Your task to perform on an android device: turn on notifications settings in the gmail app Image 0: 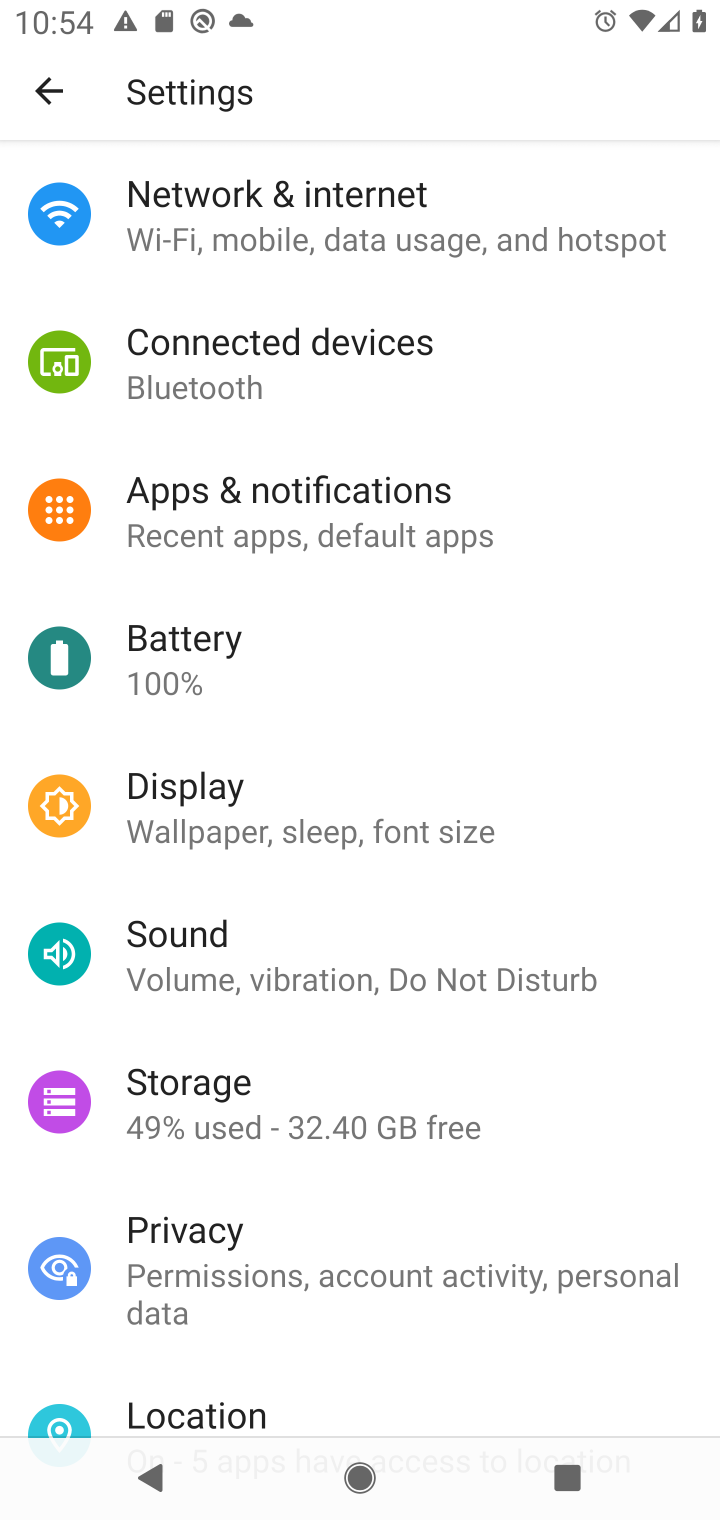
Step 0: press home button
Your task to perform on an android device: turn on notifications settings in the gmail app Image 1: 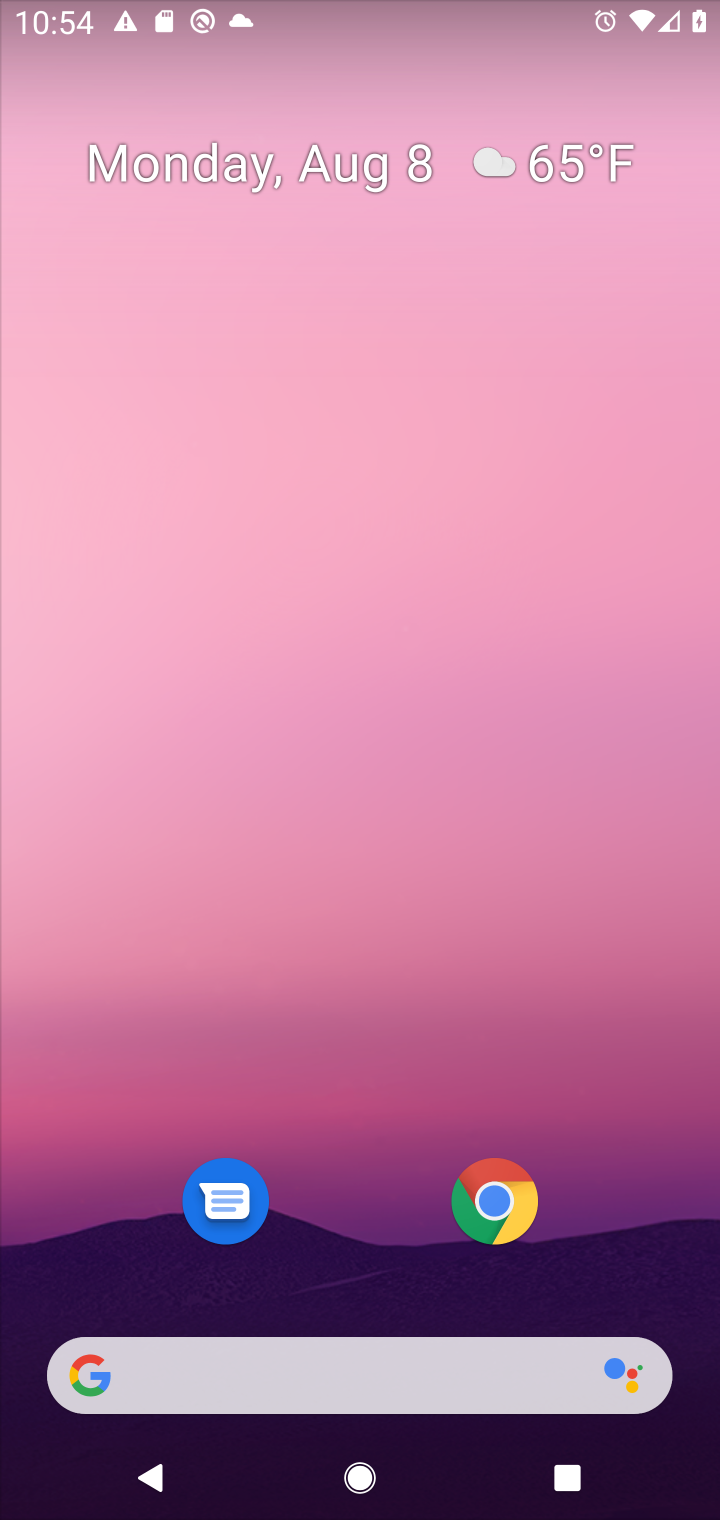
Step 1: press home button
Your task to perform on an android device: turn on notifications settings in the gmail app Image 2: 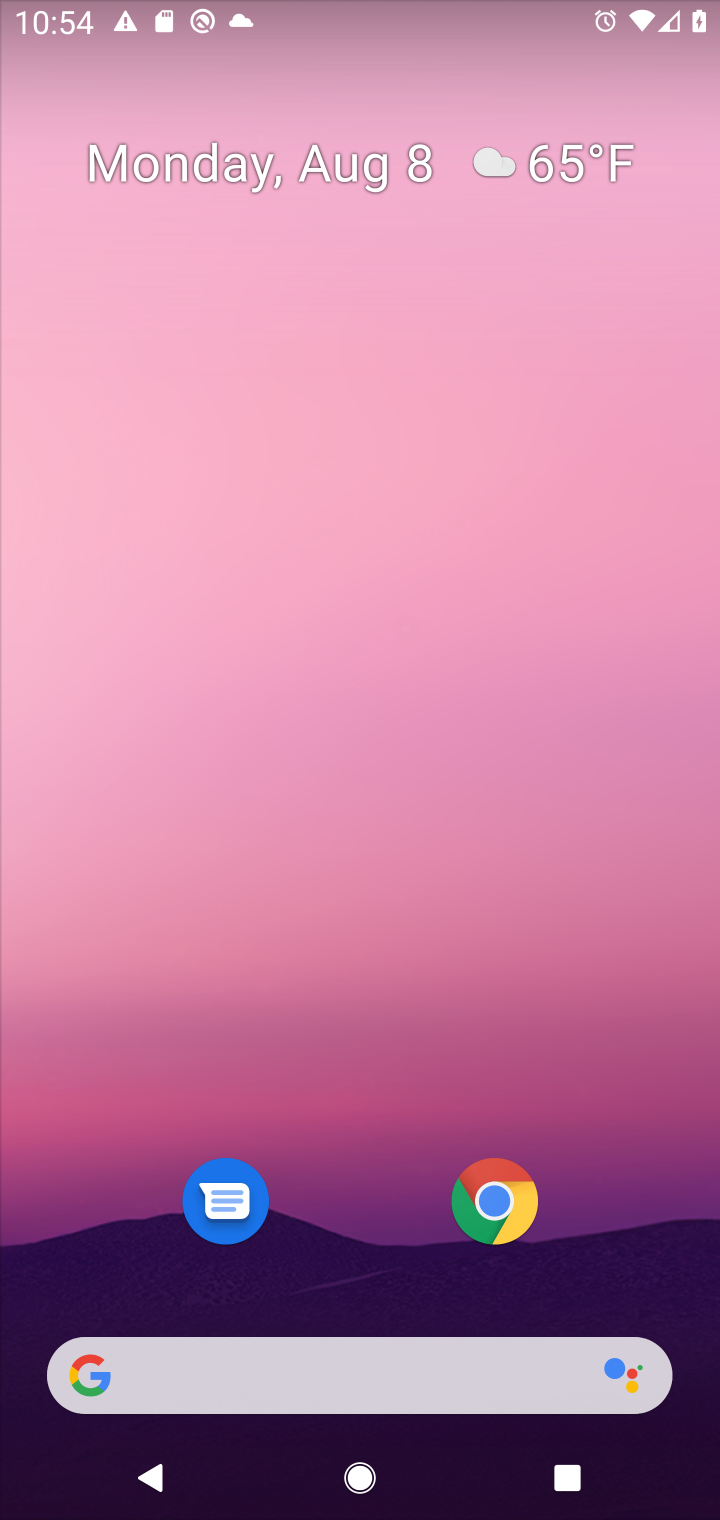
Step 2: drag from (392, 1137) to (390, 347)
Your task to perform on an android device: turn on notifications settings in the gmail app Image 3: 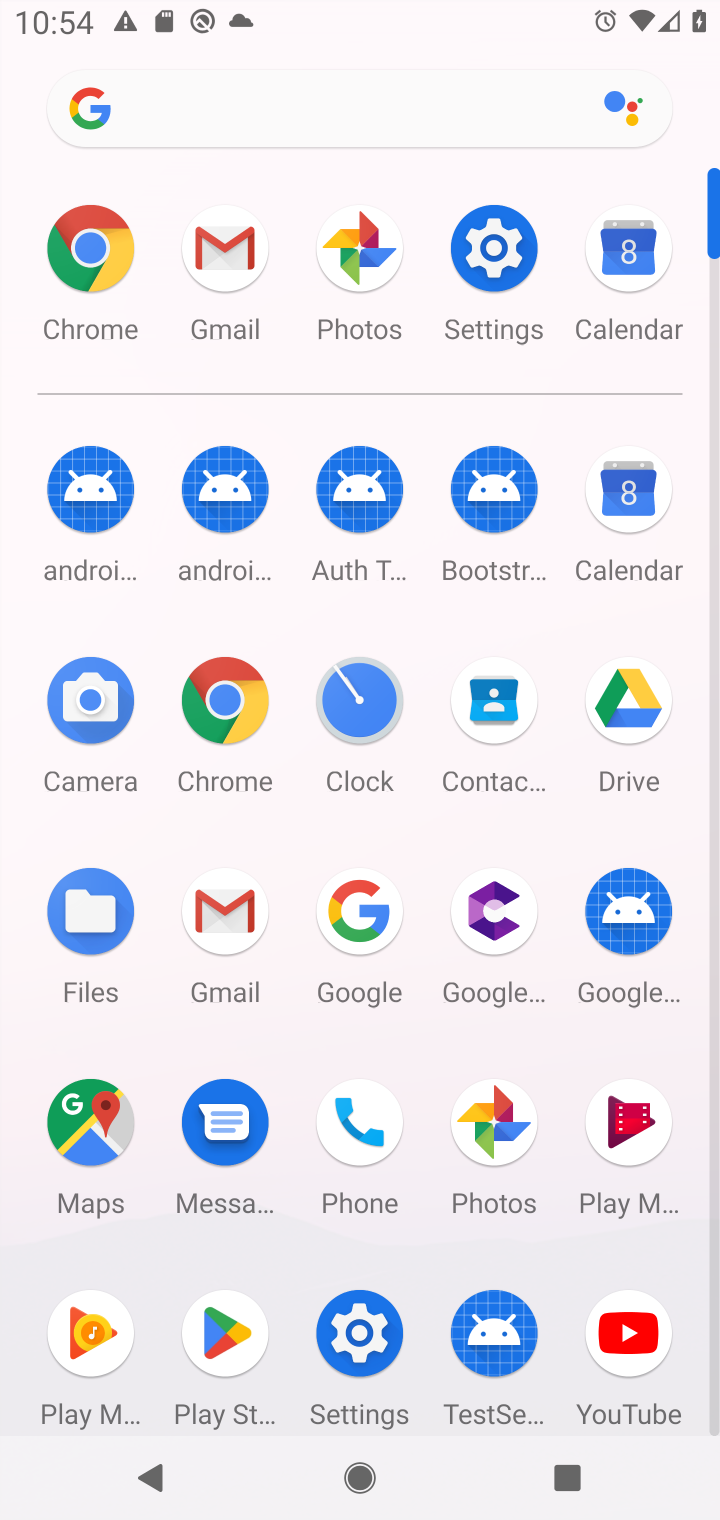
Step 3: click (228, 917)
Your task to perform on an android device: turn on notifications settings in the gmail app Image 4: 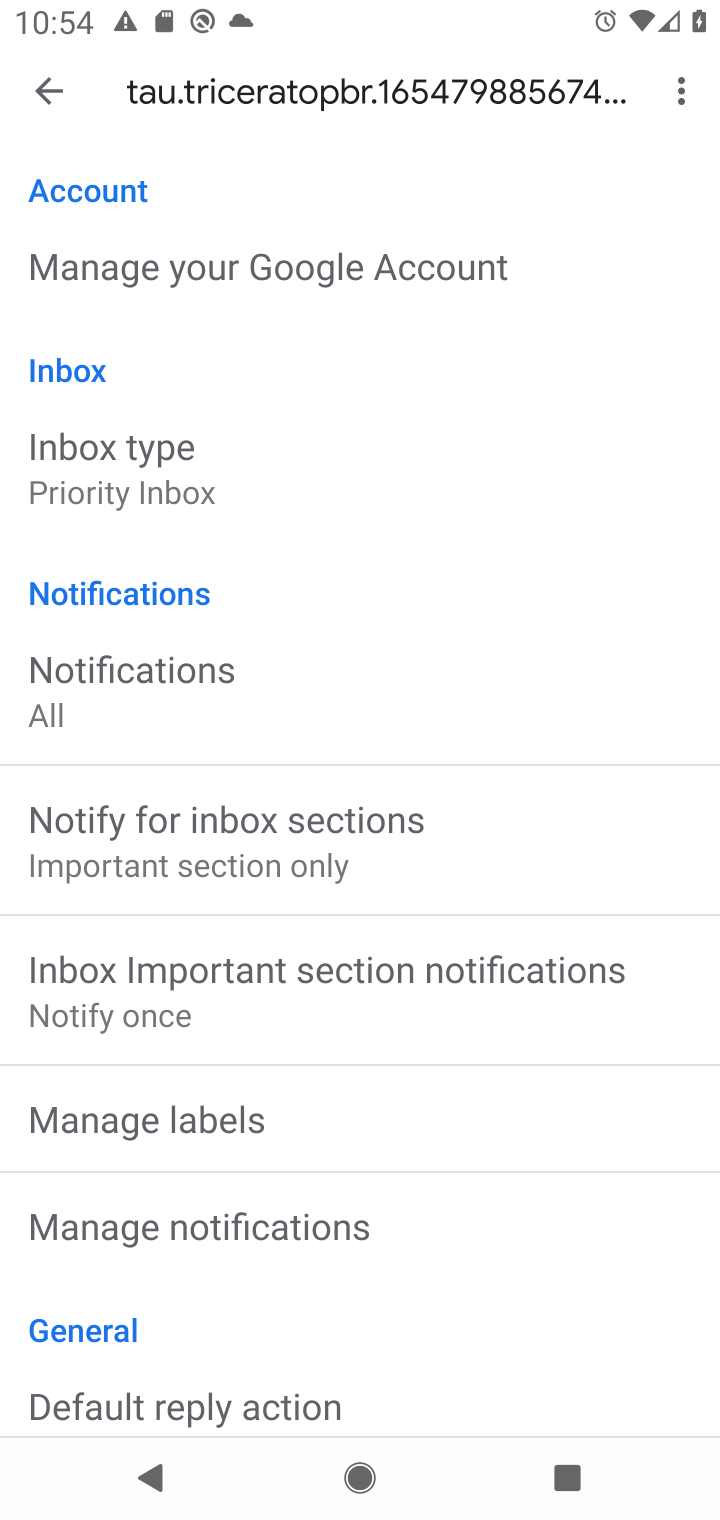
Step 4: drag from (571, 1042) to (602, 773)
Your task to perform on an android device: turn on notifications settings in the gmail app Image 5: 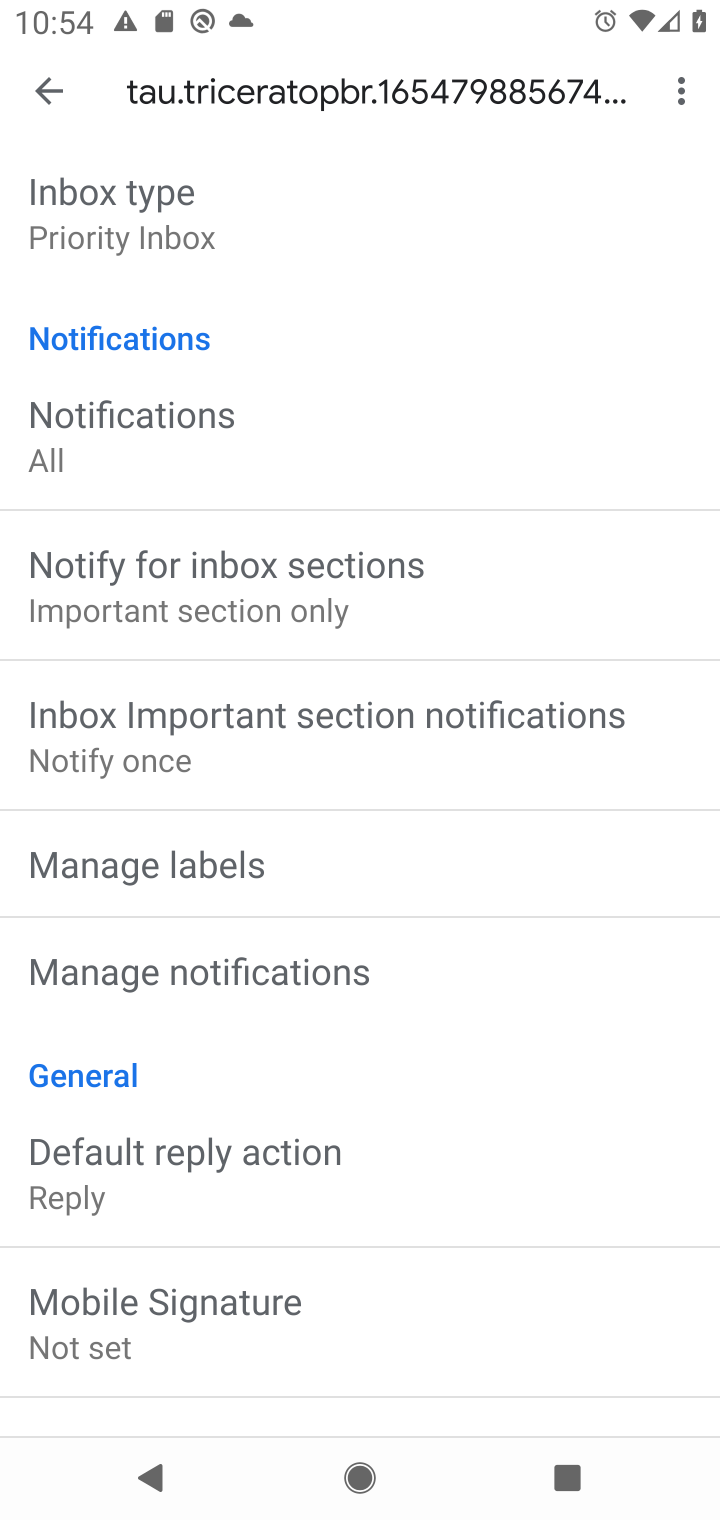
Step 5: drag from (560, 1043) to (572, 730)
Your task to perform on an android device: turn on notifications settings in the gmail app Image 6: 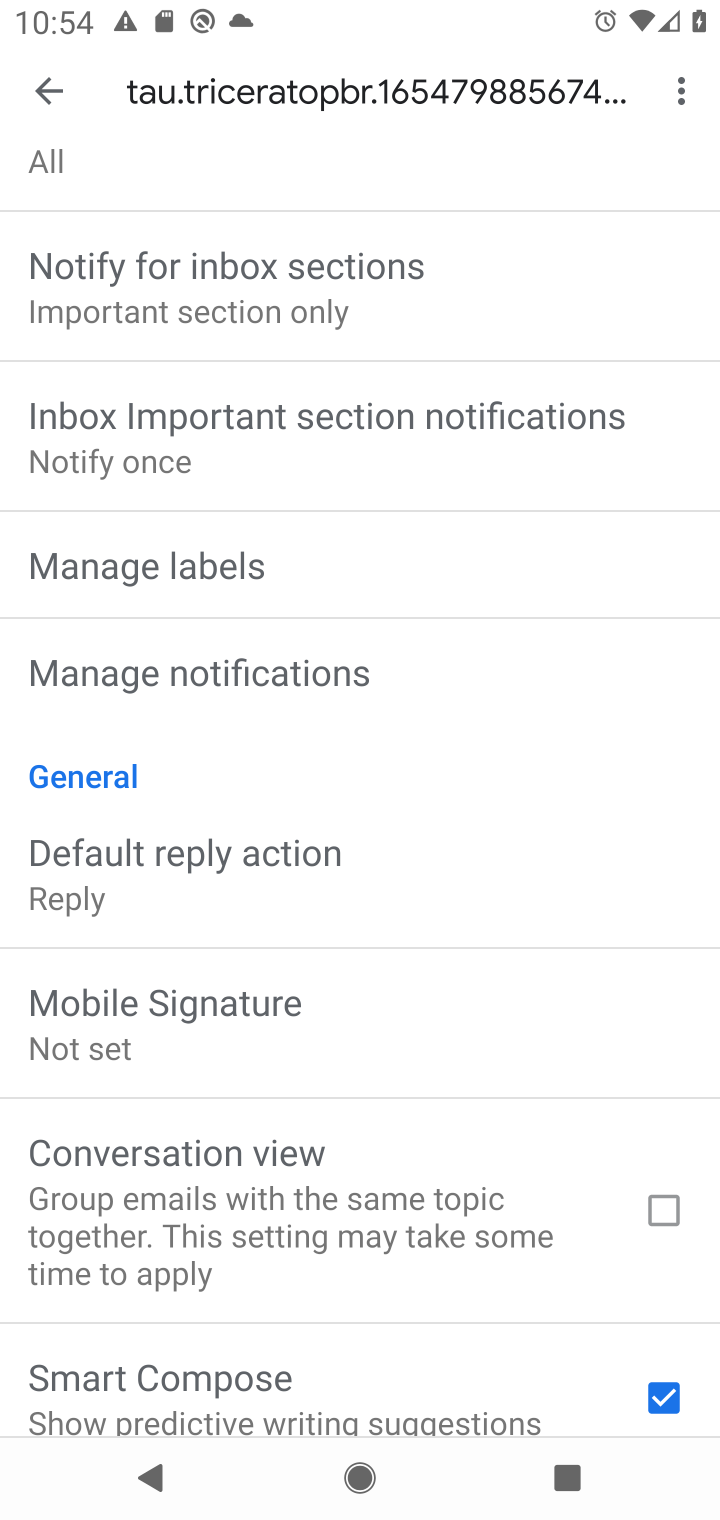
Step 6: drag from (586, 857) to (598, 648)
Your task to perform on an android device: turn on notifications settings in the gmail app Image 7: 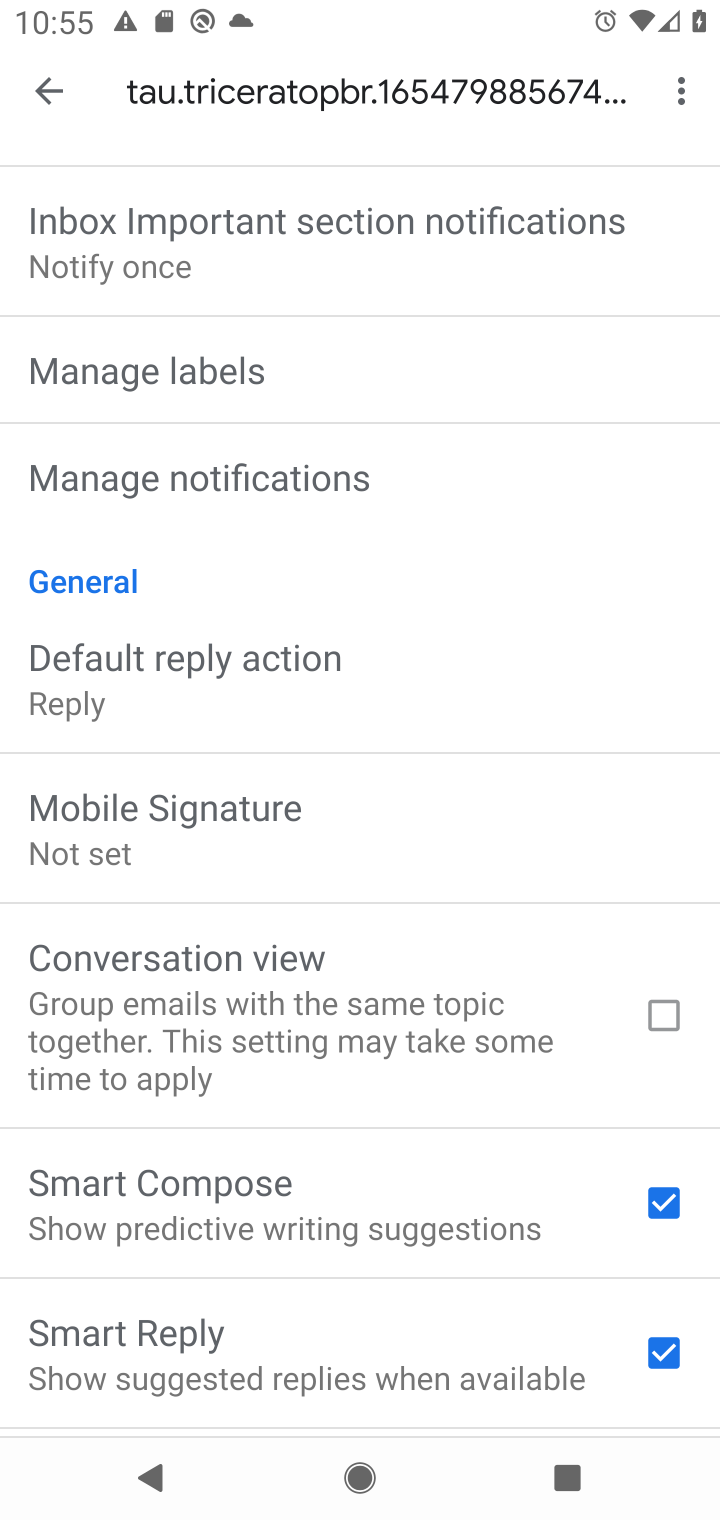
Step 7: click (449, 476)
Your task to perform on an android device: turn on notifications settings in the gmail app Image 8: 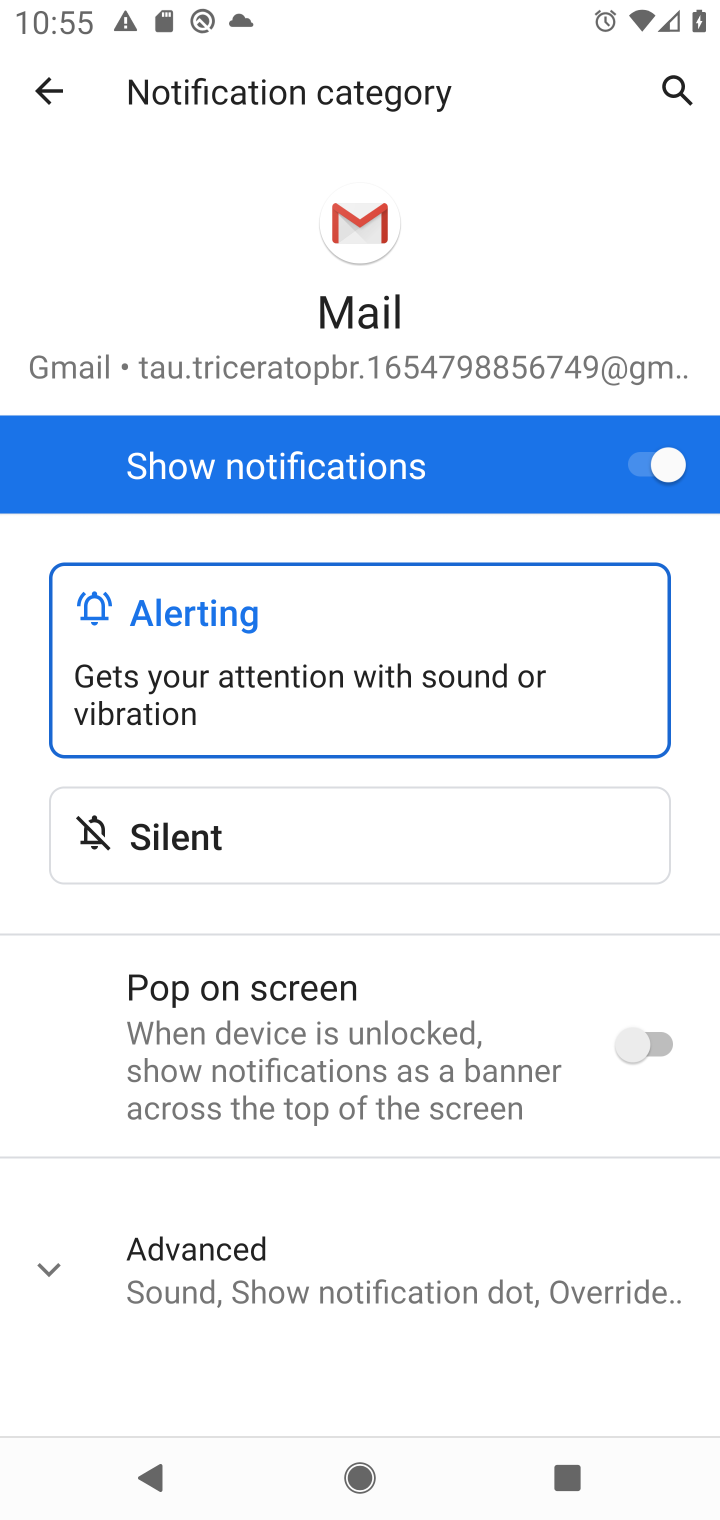
Step 8: task complete